Your task to perform on an android device: Go to calendar. Show me events next week Image 0: 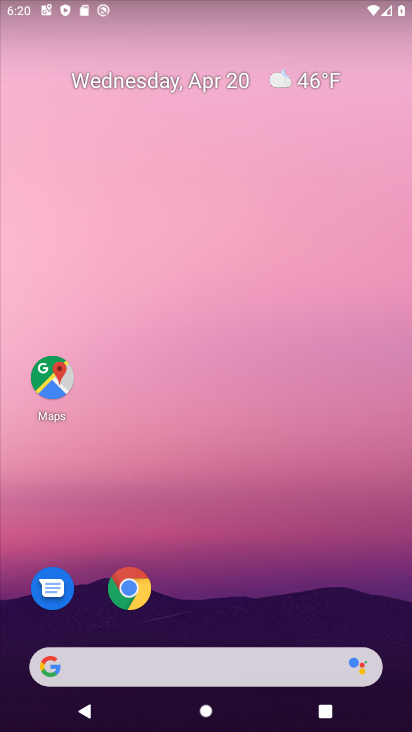
Step 0: drag from (241, 608) to (233, 48)
Your task to perform on an android device: Go to calendar. Show me events next week Image 1: 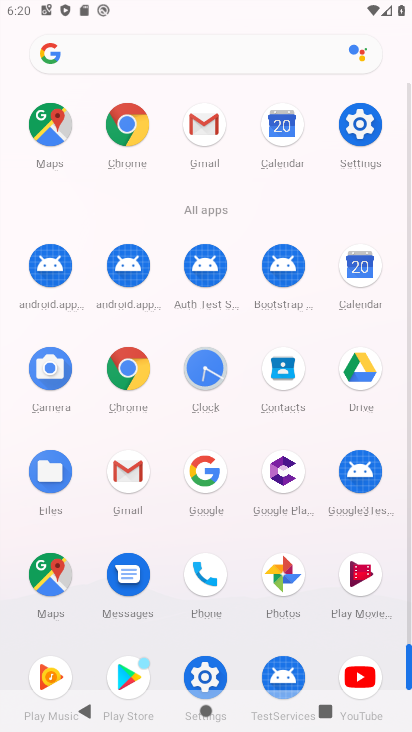
Step 1: click (370, 275)
Your task to perform on an android device: Go to calendar. Show me events next week Image 2: 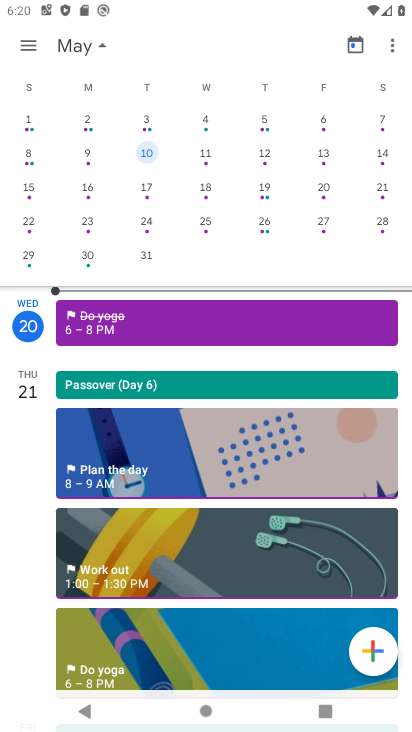
Step 2: drag from (9, 145) to (410, 156)
Your task to perform on an android device: Go to calendar. Show me events next week Image 3: 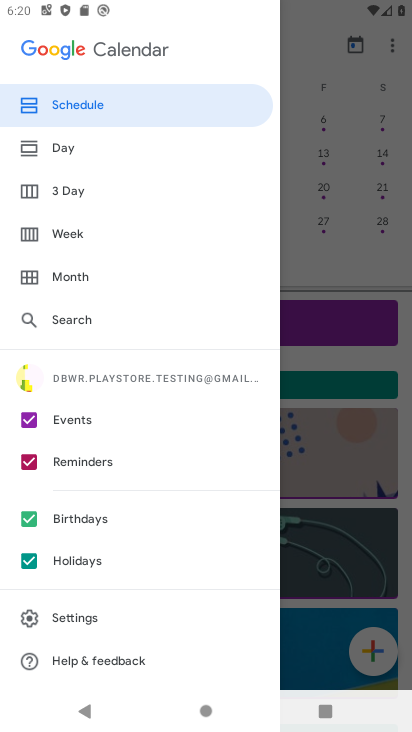
Step 3: click (390, 206)
Your task to perform on an android device: Go to calendar. Show me events next week Image 4: 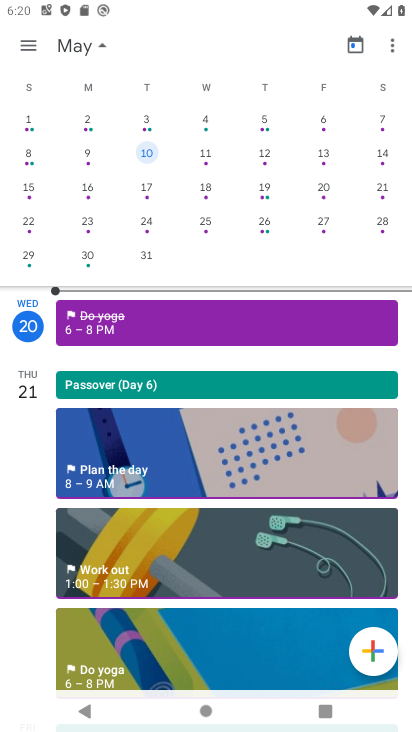
Step 4: drag from (75, 181) to (405, 213)
Your task to perform on an android device: Go to calendar. Show me events next week Image 5: 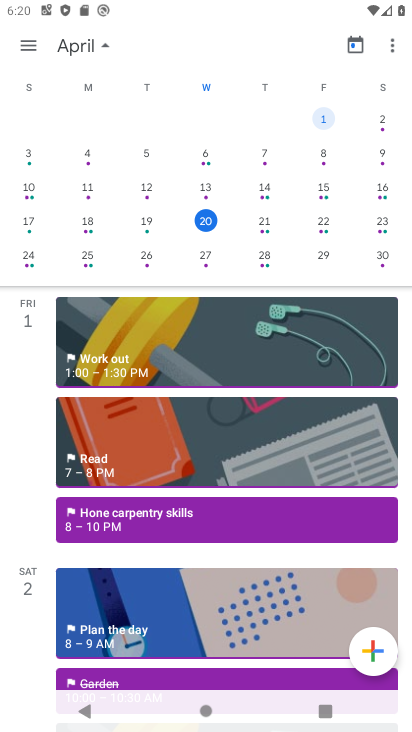
Step 5: click (208, 259)
Your task to perform on an android device: Go to calendar. Show me events next week Image 6: 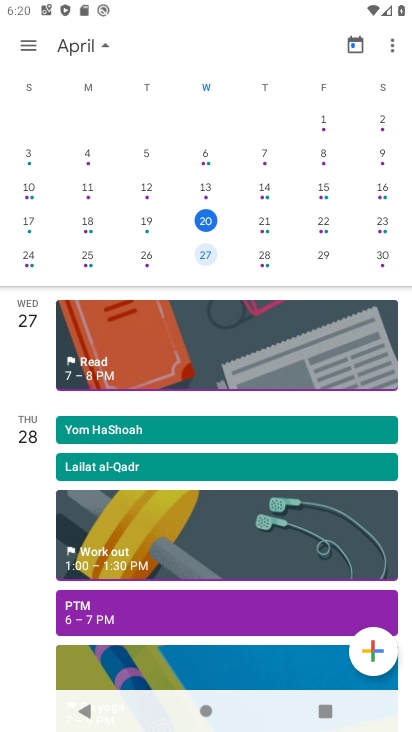
Step 6: task complete